Your task to perform on an android device: turn on airplane mode Image 0: 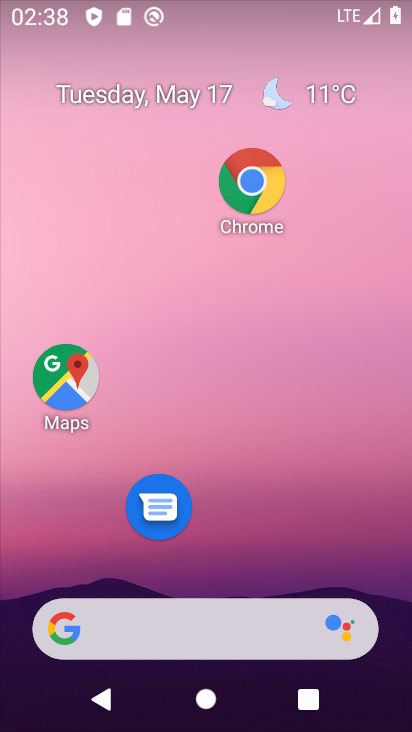
Step 0: drag from (272, 8) to (406, 588)
Your task to perform on an android device: turn on airplane mode Image 1: 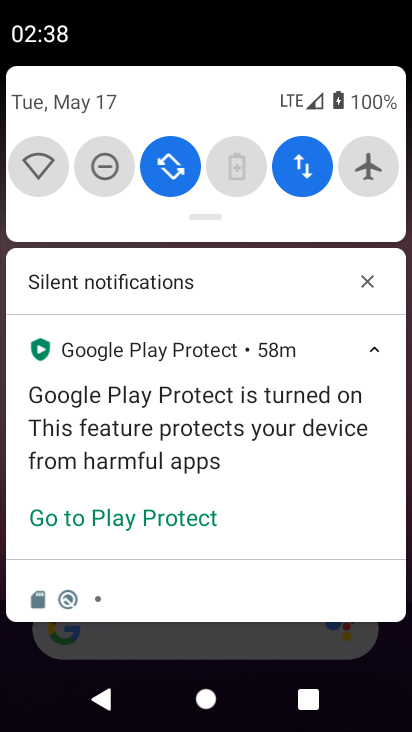
Step 1: click (368, 162)
Your task to perform on an android device: turn on airplane mode Image 2: 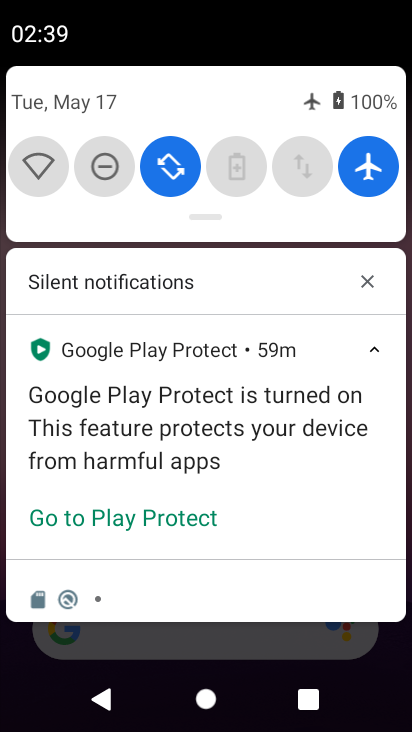
Step 2: task complete